Your task to perform on an android device: turn on the 24-hour format for clock Image 0: 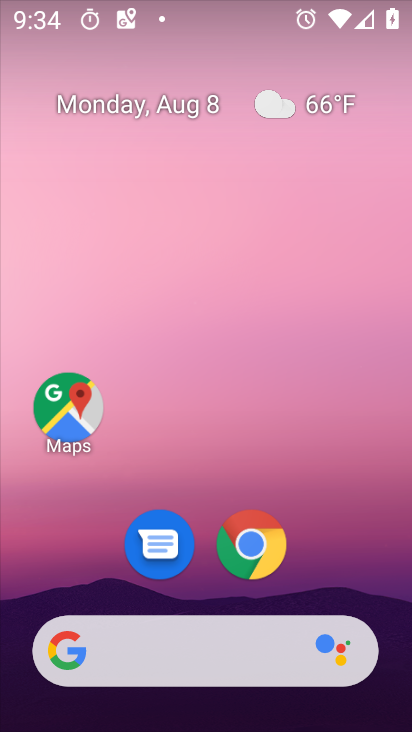
Step 0: drag from (320, 567) to (322, 44)
Your task to perform on an android device: turn on the 24-hour format for clock Image 1: 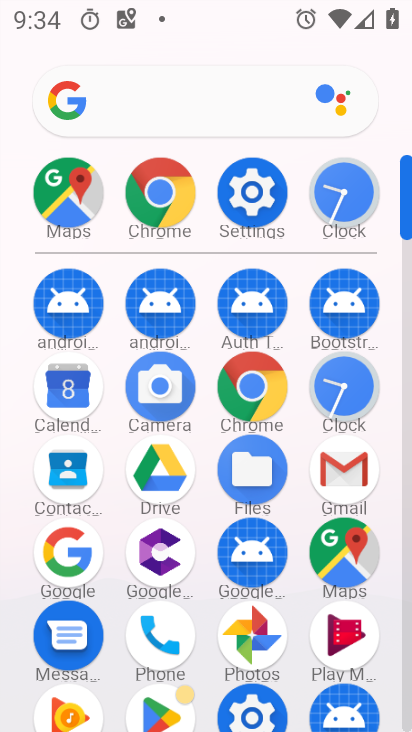
Step 1: click (334, 383)
Your task to perform on an android device: turn on the 24-hour format for clock Image 2: 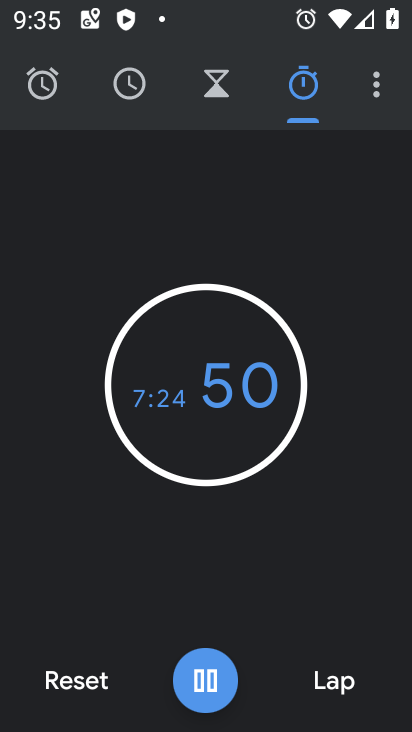
Step 2: task complete